Your task to perform on an android device: Go to sound settings Image 0: 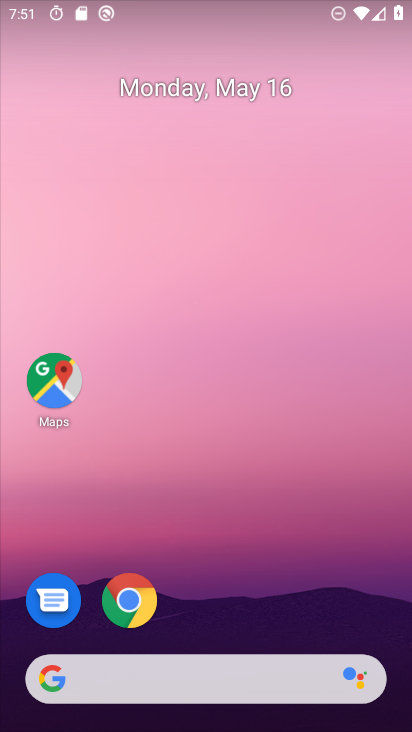
Step 0: drag from (267, 589) to (385, 207)
Your task to perform on an android device: Go to sound settings Image 1: 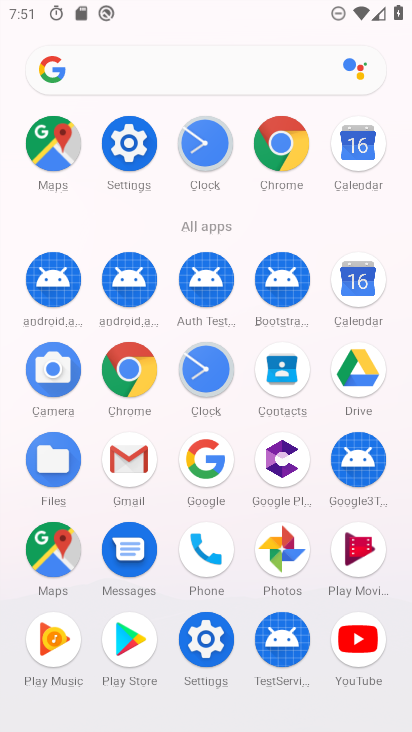
Step 1: click (131, 141)
Your task to perform on an android device: Go to sound settings Image 2: 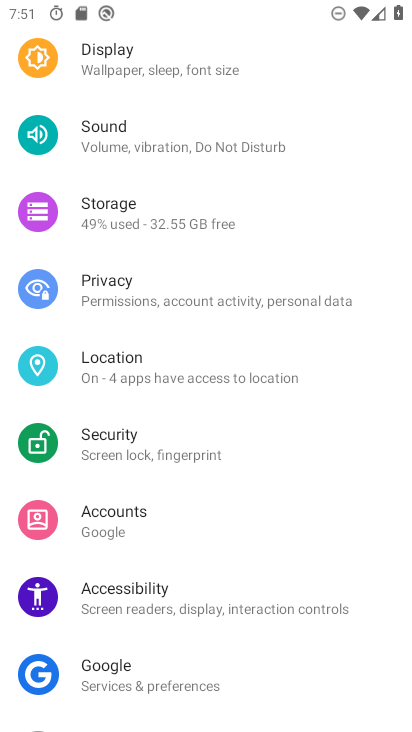
Step 2: click (150, 136)
Your task to perform on an android device: Go to sound settings Image 3: 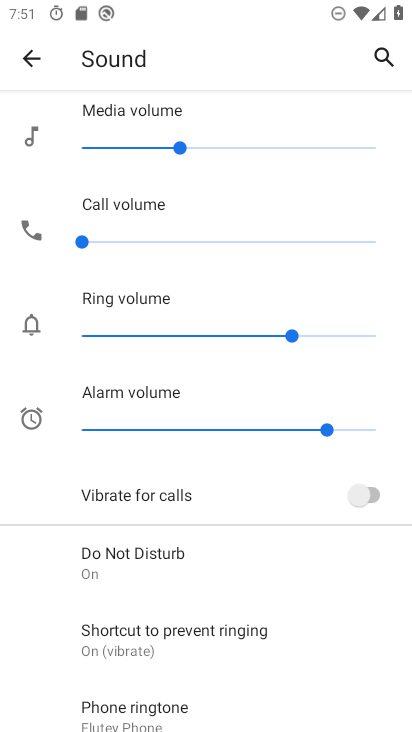
Step 3: task complete